Your task to perform on an android device: check the backup settings in the google photos Image 0: 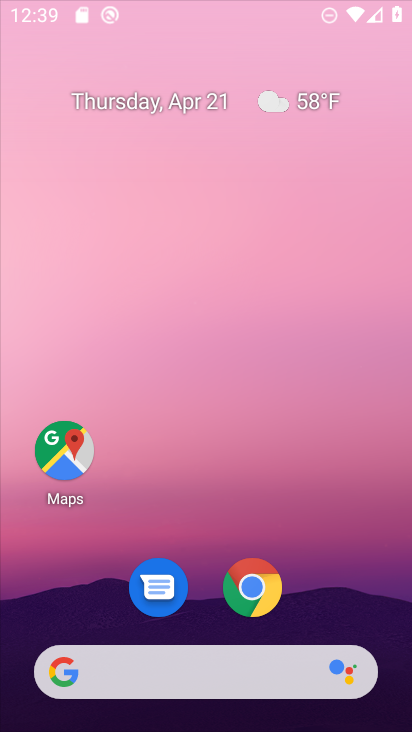
Step 0: drag from (276, 365) to (344, 7)
Your task to perform on an android device: check the backup settings in the google photos Image 1: 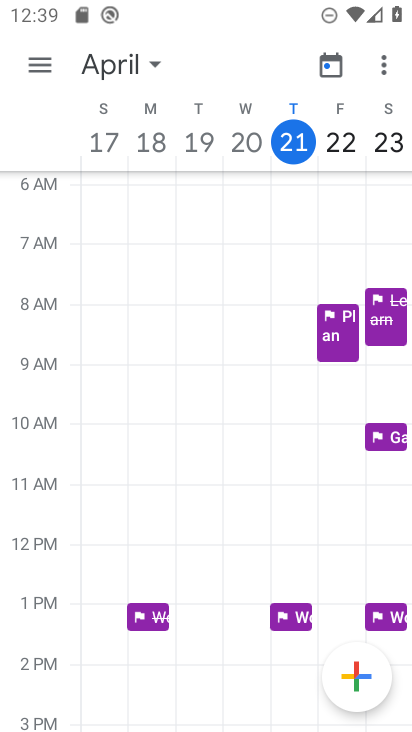
Step 1: press home button
Your task to perform on an android device: check the backup settings in the google photos Image 2: 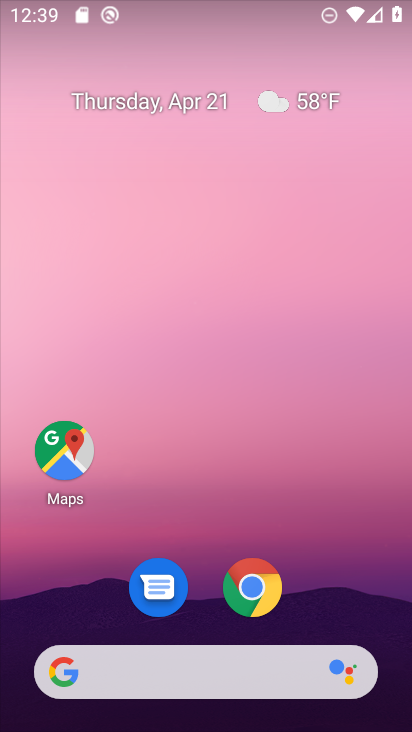
Step 2: drag from (199, 586) to (319, 2)
Your task to perform on an android device: check the backup settings in the google photos Image 3: 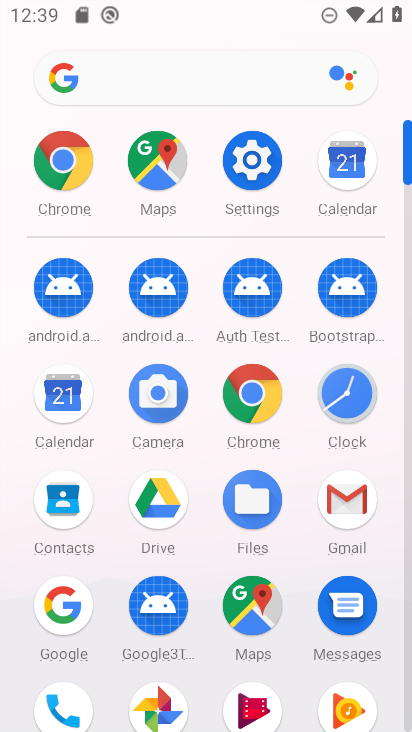
Step 3: click (260, 181)
Your task to perform on an android device: check the backup settings in the google photos Image 4: 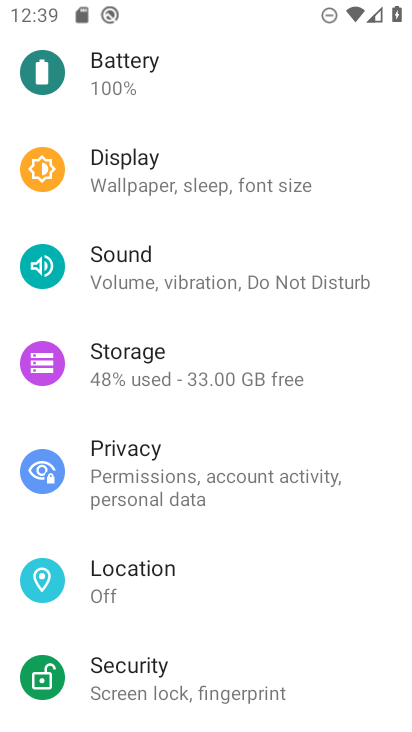
Step 4: press home button
Your task to perform on an android device: check the backup settings in the google photos Image 5: 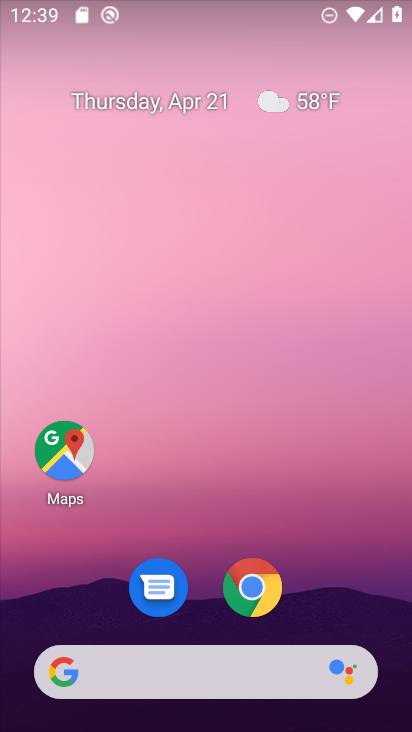
Step 5: drag from (200, 432) to (328, 4)
Your task to perform on an android device: check the backup settings in the google photos Image 6: 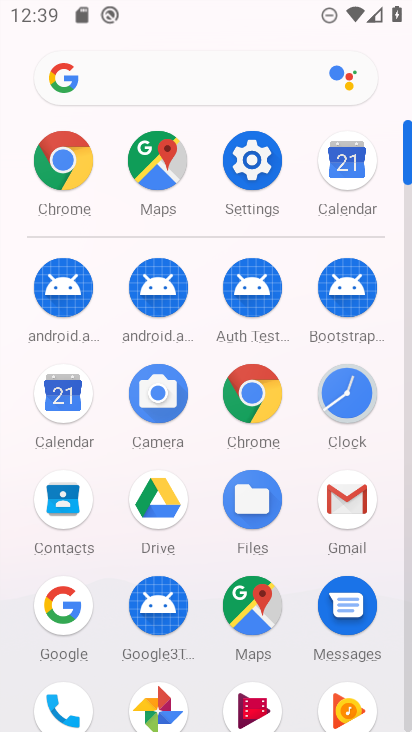
Step 6: click (154, 697)
Your task to perform on an android device: check the backup settings in the google photos Image 7: 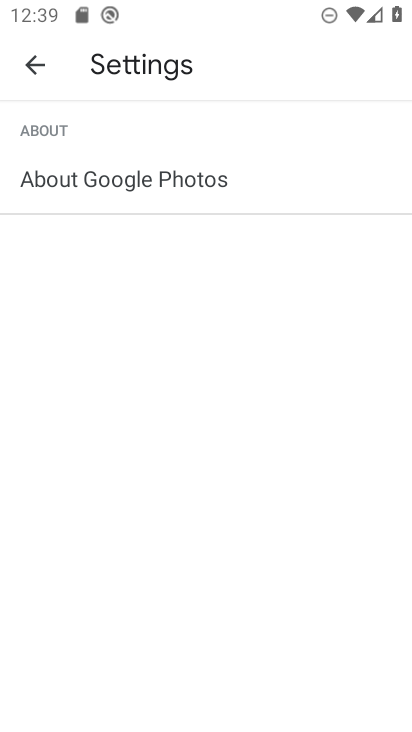
Step 7: click (48, 61)
Your task to perform on an android device: check the backup settings in the google photos Image 8: 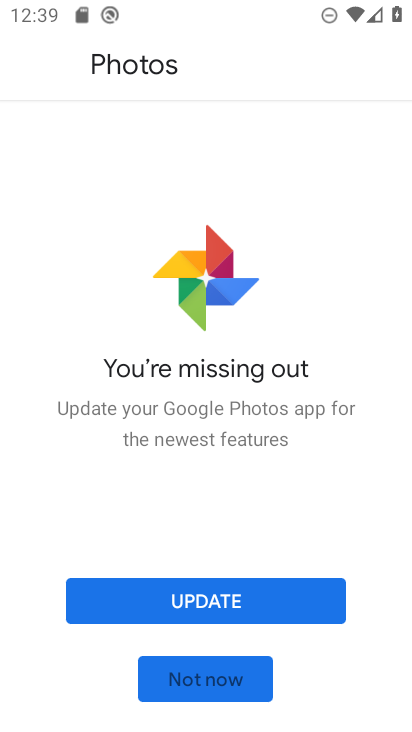
Step 8: click (219, 590)
Your task to perform on an android device: check the backup settings in the google photos Image 9: 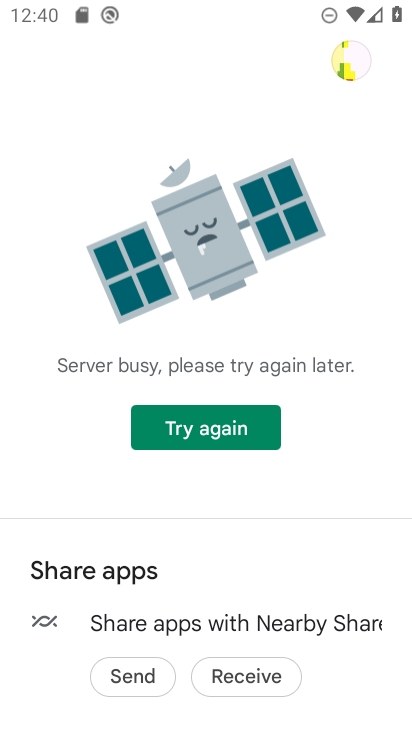
Step 9: click (190, 447)
Your task to perform on an android device: check the backup settings in the google photos Image 10: 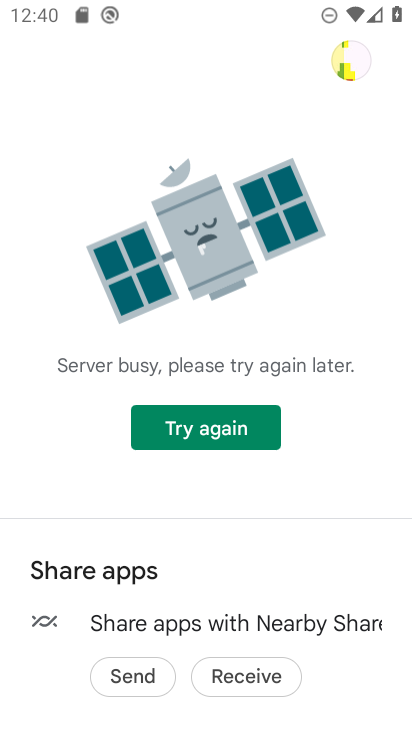
Step 10: press back button
Your task to perform on an android device: check the backup settings in the google photos Image 11: 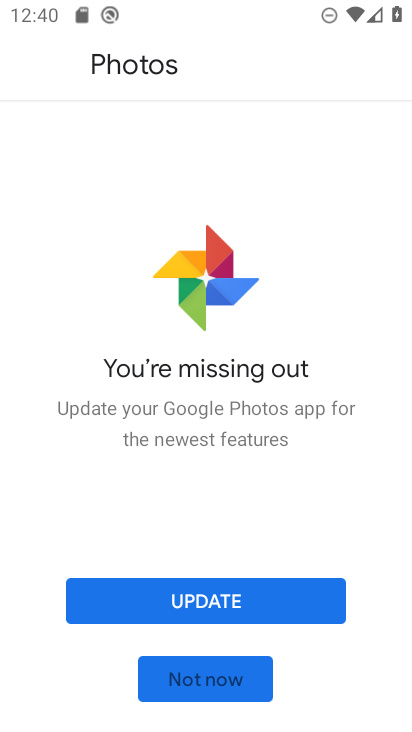
Step 11: click (229, 673)
Your task to perform on an android device: check the backup settings in the google photos Image 12: 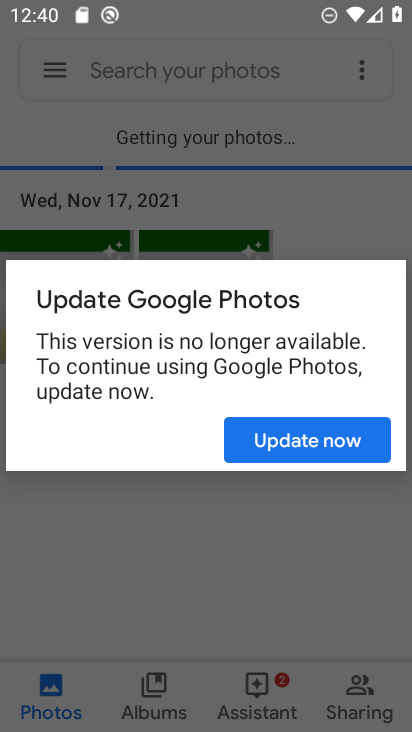
Step 12: click (302, 434)
Your task to perform on an android device: check the backup settings in the google photos Image 13: 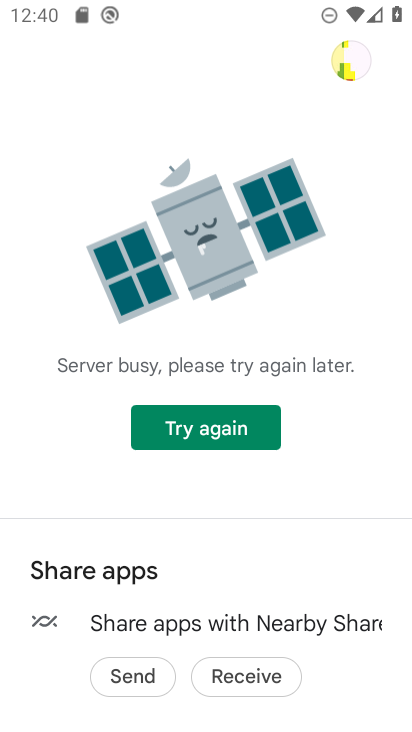
Step 13: press back button
Your task to perform on an android device: check the backup settings in the google photos Image 14: 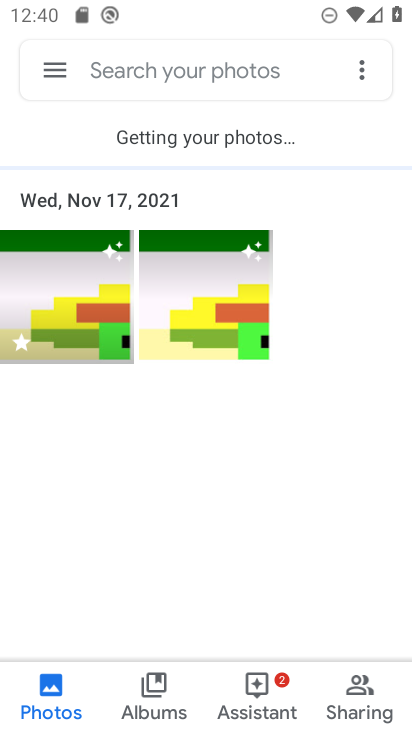
Step 14: click (56, 71)
Your task to perform on an android device: check the backup settings in the google photos Image 15: 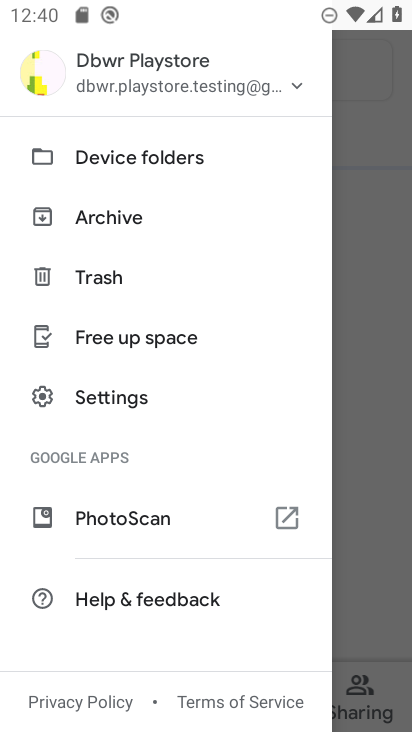
Step 15: click (129, 387)
Your task to perform on an android device: check the backup settings in the google photos Image 16: 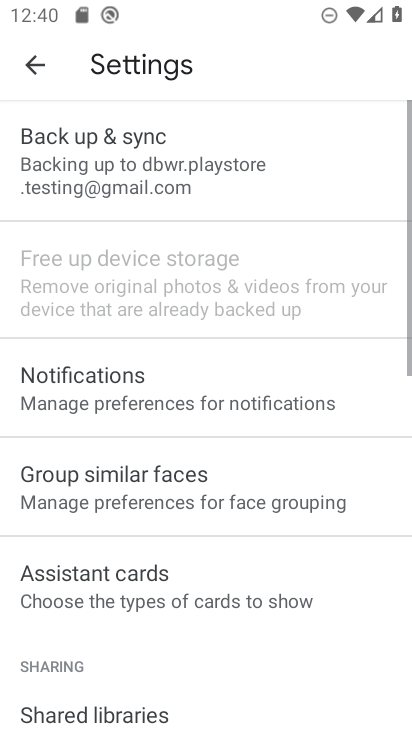
Step 16: click (141, 169)
Your task to perform on an android device: check the backup settings in the google photos Image 17: 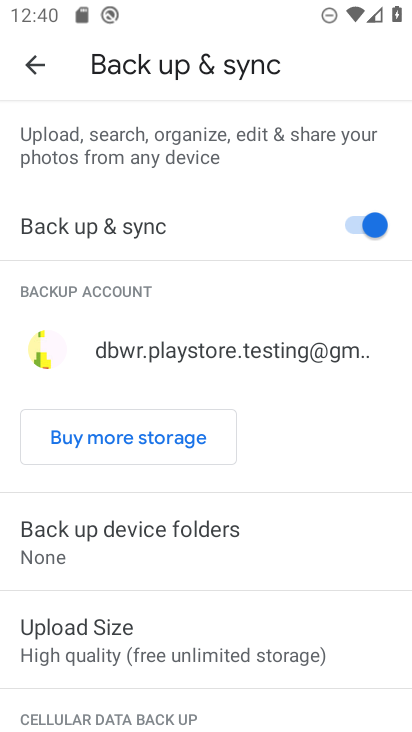
Step 17: task complete